Your task to perform on an android device: Look up the best rated kitchen knives on Amazon. Image 0: 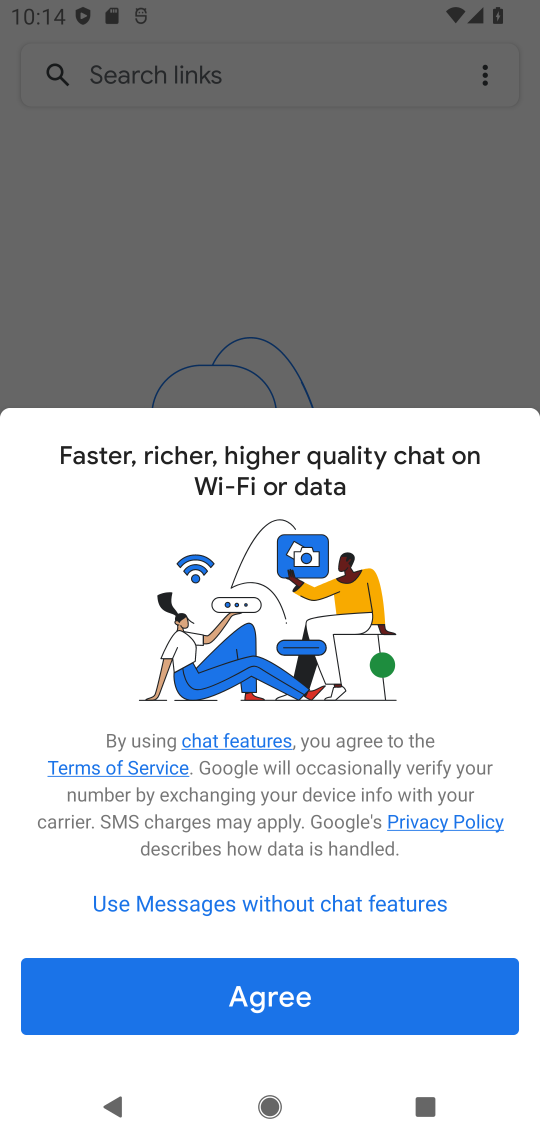
Step 0: press home button
Your task to perform on an android device: Look up the best rated kitchen knives on Amazon. Image 1: 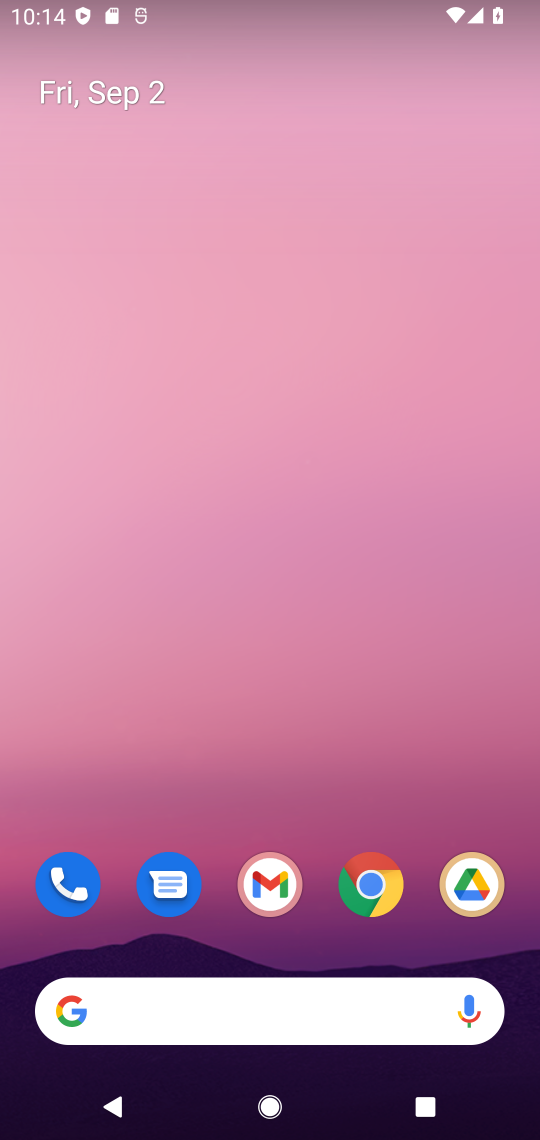
Step 1: drag from (312, 955) to (379, 377)
Your task to perform on an android device: Look up the best rated kitchen knives on Amazon. Image 2: 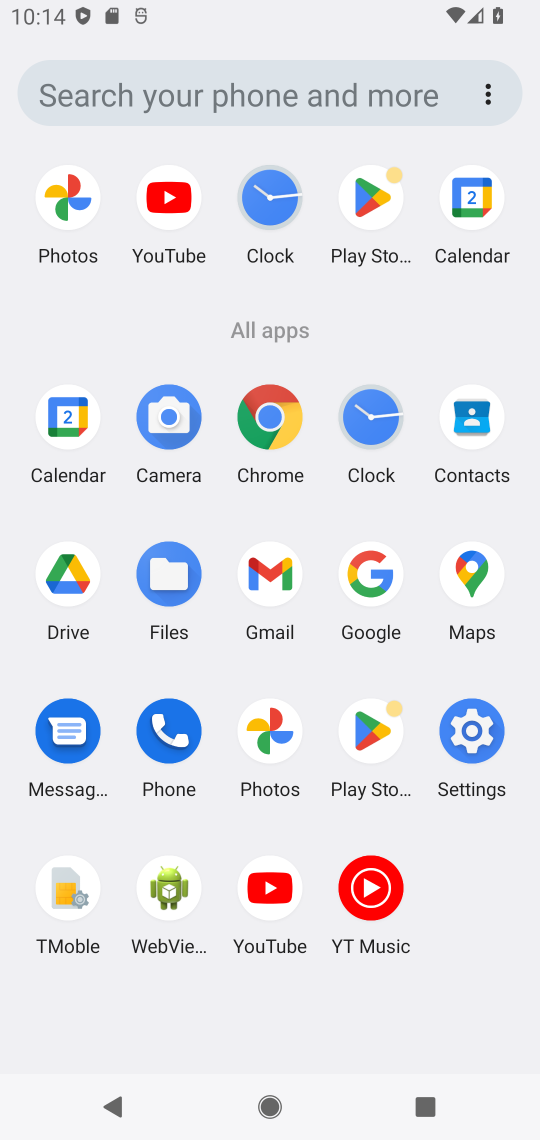
Step 2: click (276, 446)
Your task to perform on an android device: Look up the best rated kitchen knives on Amazon. Image 3: 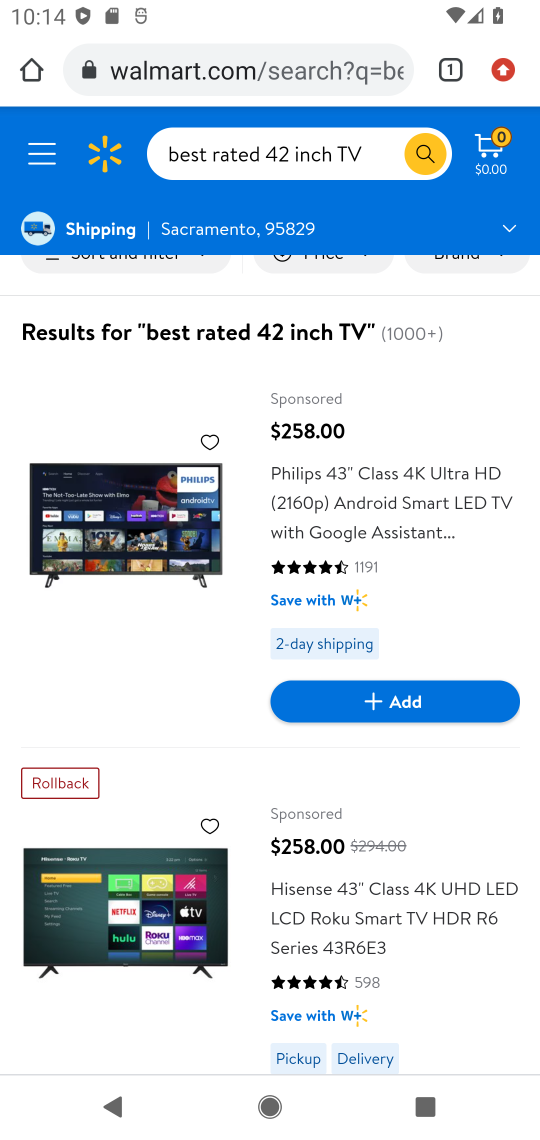
Step 3: click (311, 59)
Your task to perform on an android device: Look up the best rated kitchen knives on Amazon. Image 4: 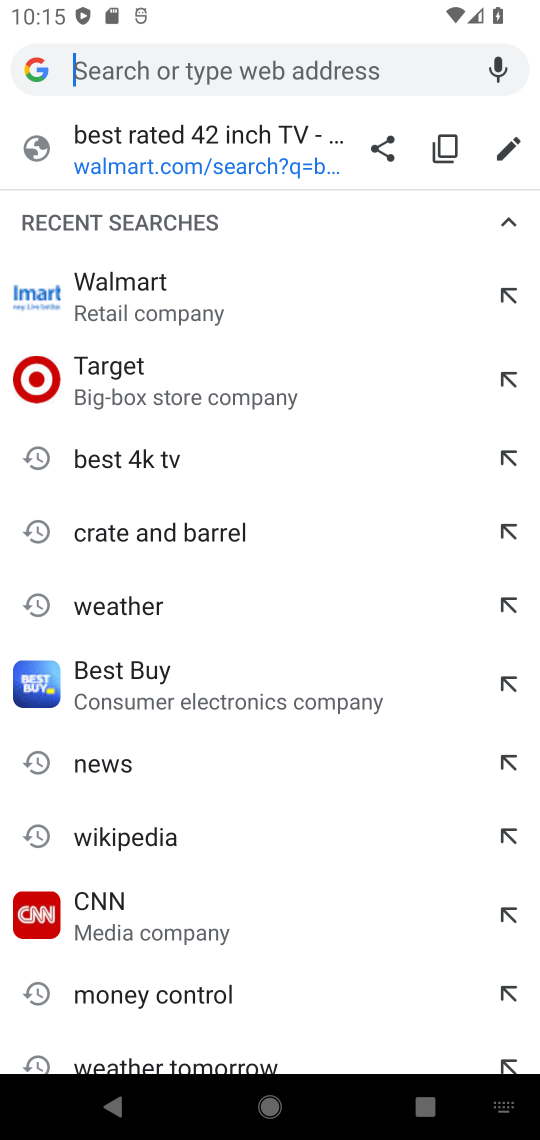
Step 4: type "amazon"
Your task to perform on an android device: Look up the best rated kitchen knives on Amazon. Image 5: 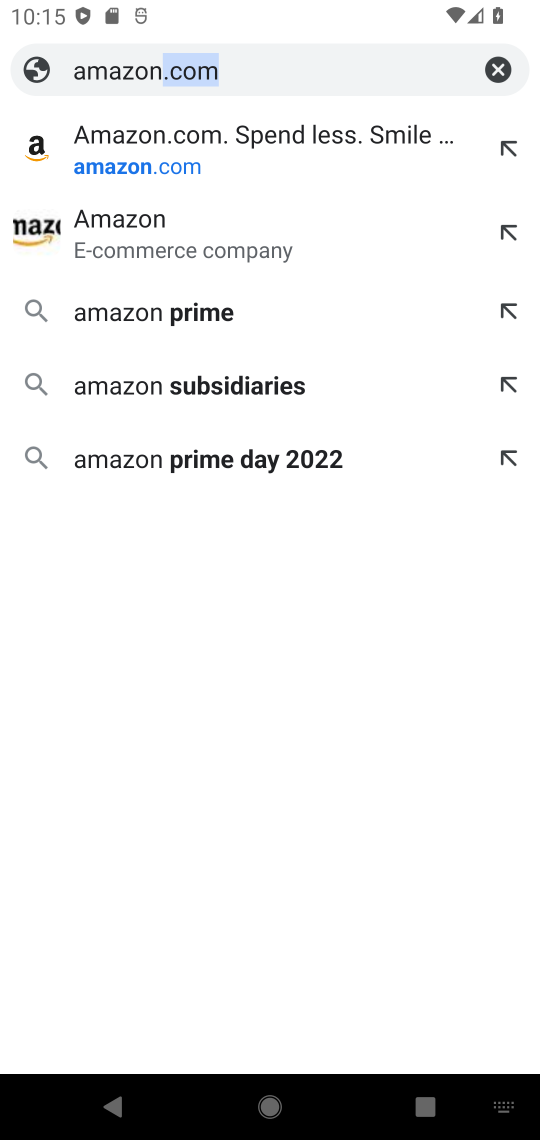
Step 5: click (286, 169)
Your task to perform on an android device: Look up the best rated kitchen knives on Amazon. Image 6: 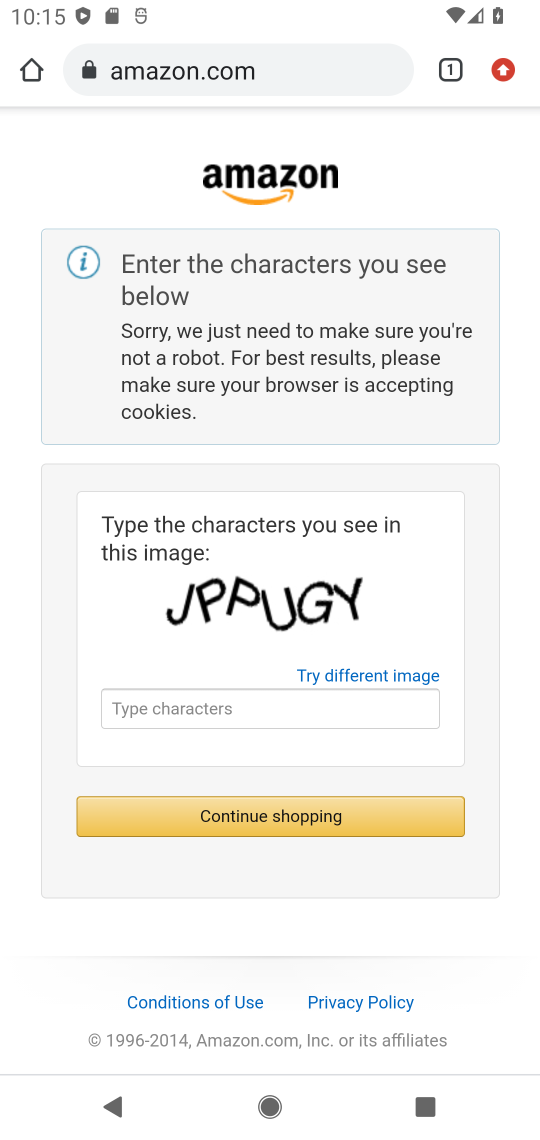
Step 6: click (373, 816)
Your task to perform on an android device: Look up the best rated kitchen knives on Amazon. Image 7: 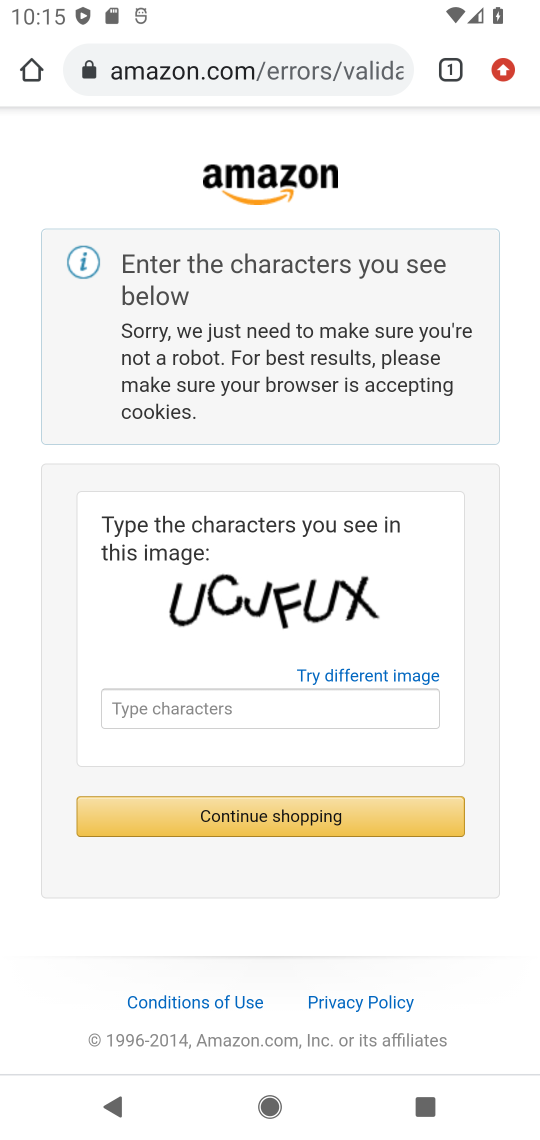
Step 7: click (264, 76)
Your task to perform on an android device: Look up the best rated kitchen knives on Amazon. Image 8: 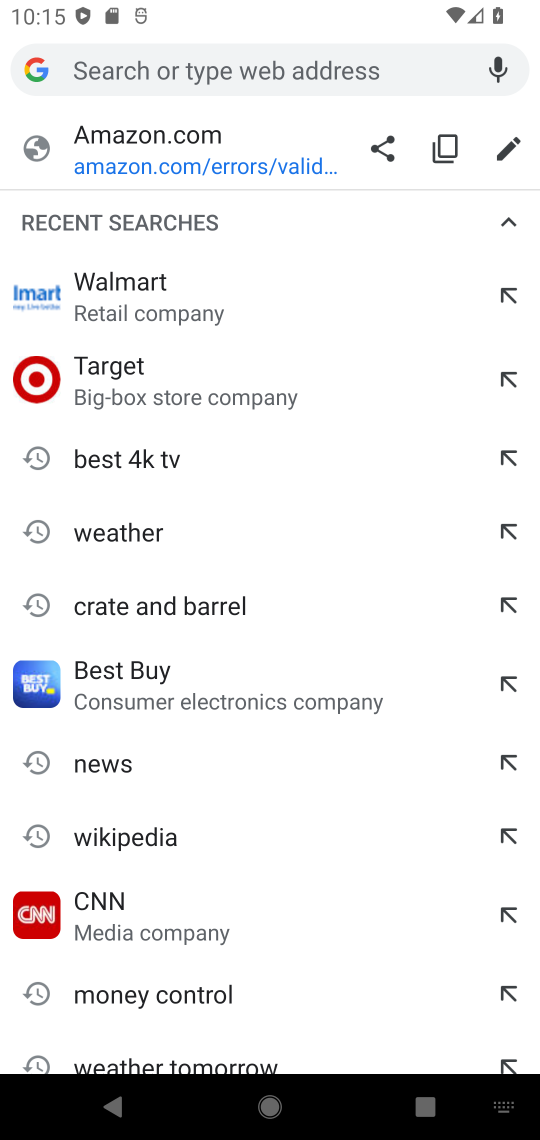
Step 8: type "amazon"
Your task to perform on an android device: Look up the best rated kitchen knives on Amazon. Image 9: 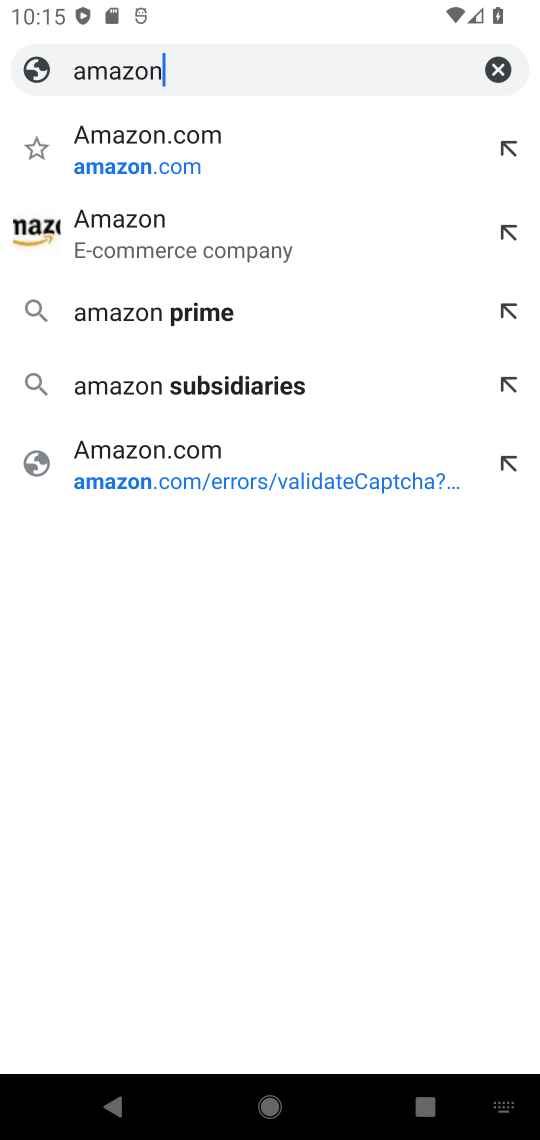
Step 9: click (301, 160)
Your task to perform on an android device: Look up the best rated kitchen knives on Amazon. Image 10: 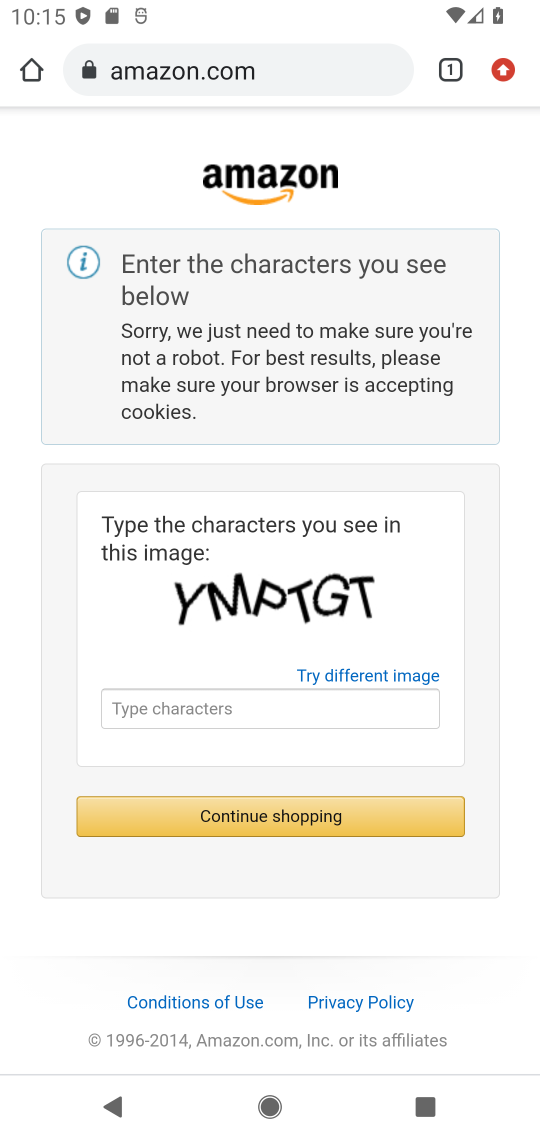
Step 10: click (229, 702)
Your task to perform on an android device: Look up the best rated kitchen knives on Amazon. Image 11: 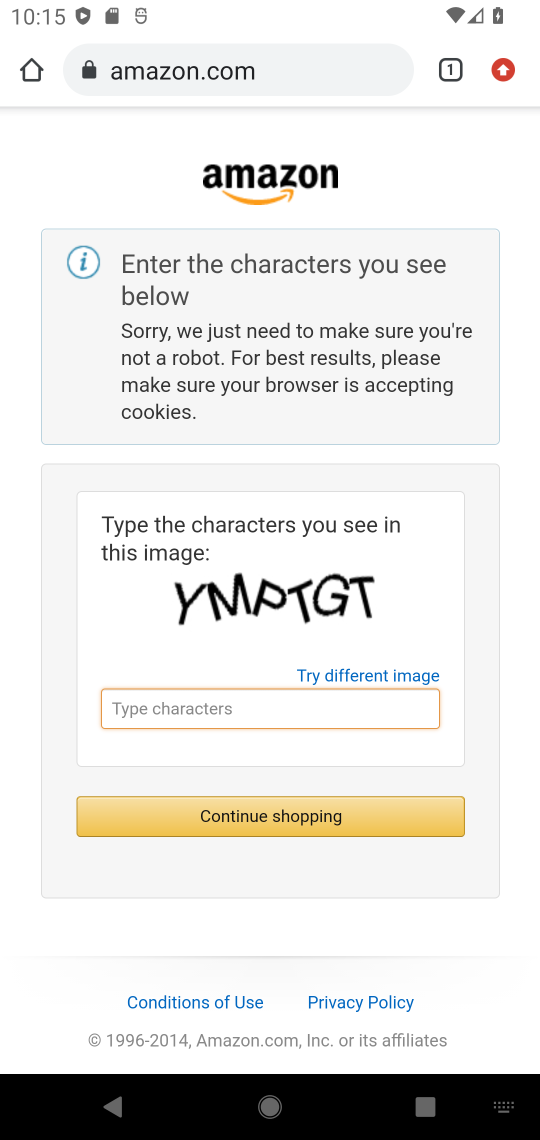
Step 11: type "YMPTGT"
Your task to perform on an android device: Look up the best rated kitchen knives on Amazon. Image 12: 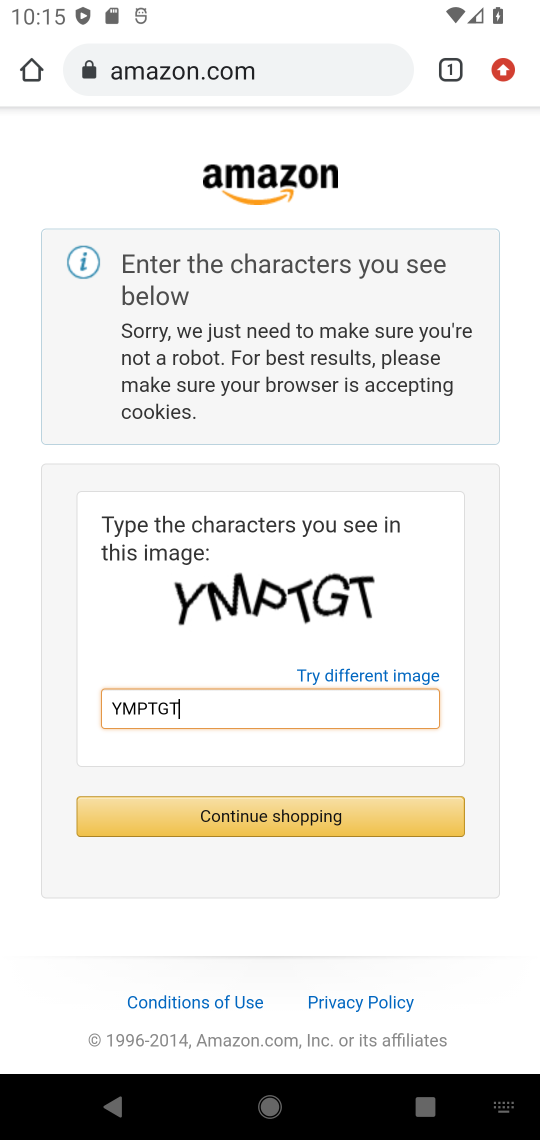
Step 12: click (281, 813)
Your task to perform on an android device: Look up the best rated kitchen knives on Amazon. Image 13: 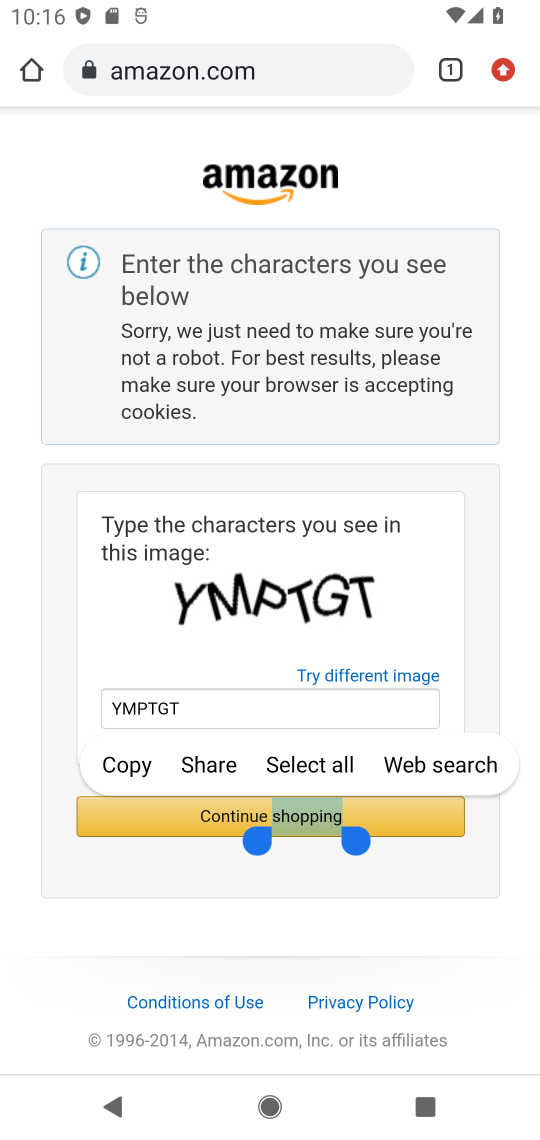
Step 13: click (159, 855)
Your task to perform on an android device: Look up the best rated kitchen knives on Amazon. Image 14: 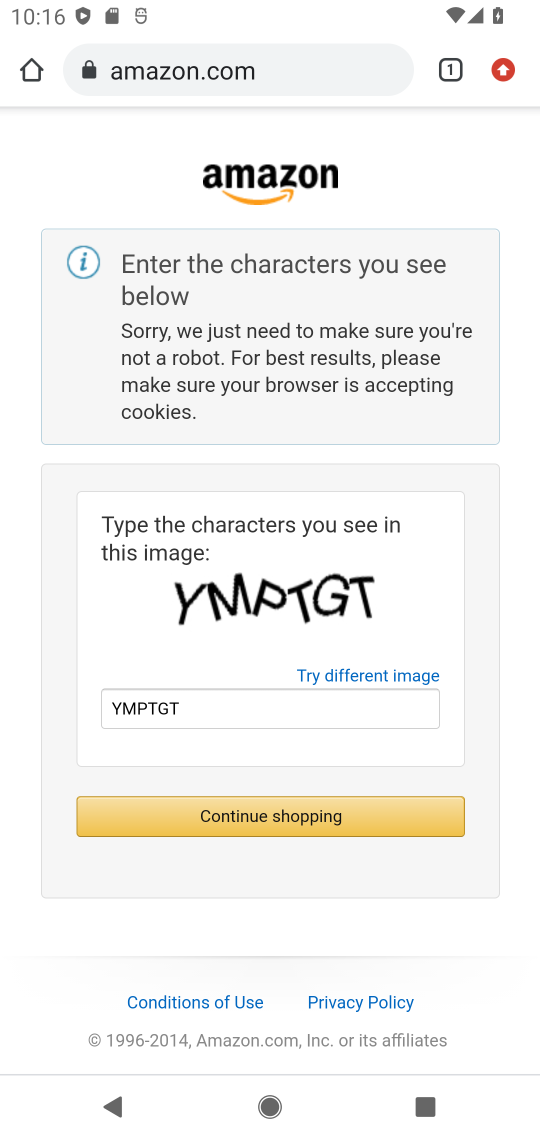
Step 14: click (159, 855)
Your task to perform on an android device: Look up the best rated kitchen knives on Amazon. Image 15: 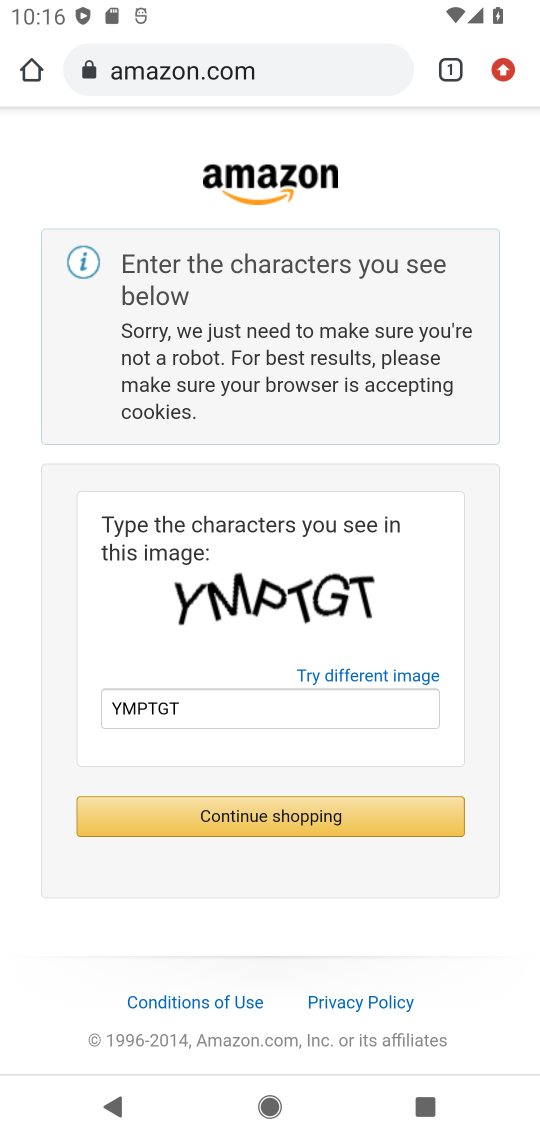
Step 15: click (224, 820)
Your task to perform on an android device: Look up the best rated kitchen knives on Amazon. Image 16: 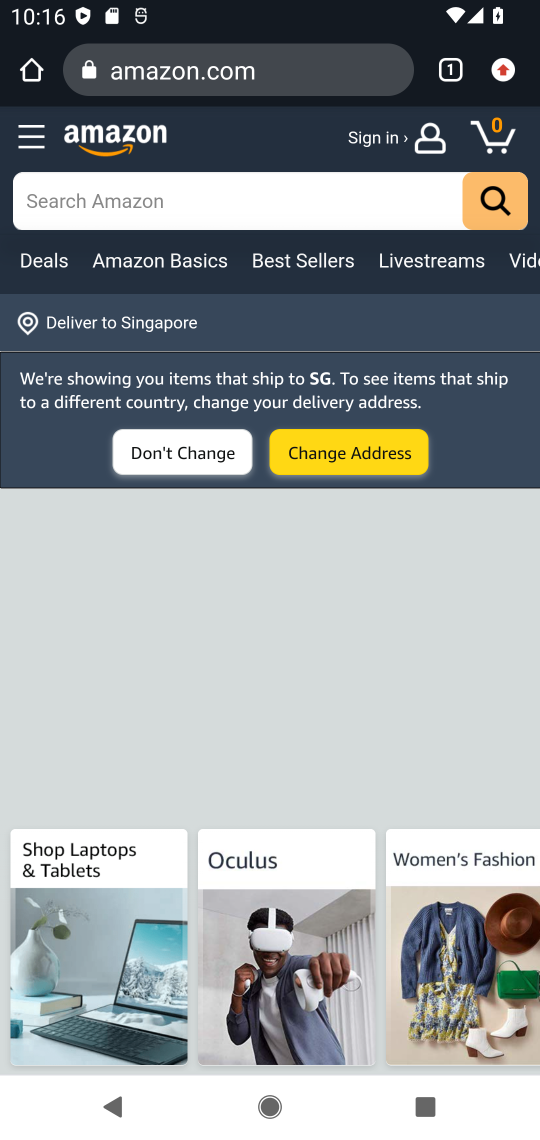
Step 16: click (237, 221)
Your task to perform on an android device: Look up the best rated kitchen knives on Amazon. Image 17: 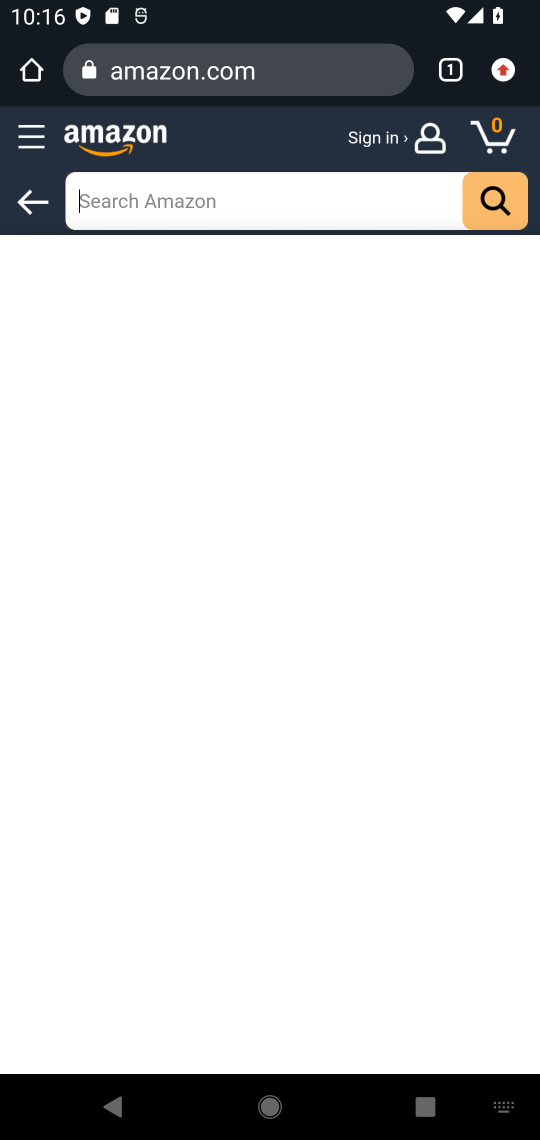
Step 17: type "best rated kitchen knives"
Your task to perform on an android device: Look up the best rated kitchen knives on Amazon. Image 18: 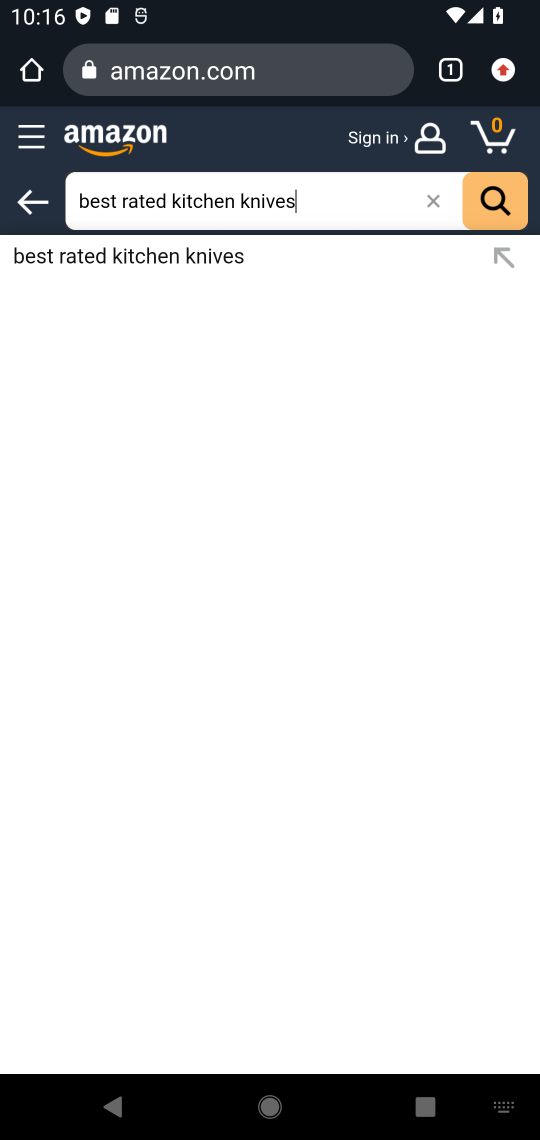
Step 18: click (234, 259)
Your task to perform on an android device: Look up the best rated kitchen knives on Amazon. Image 19: 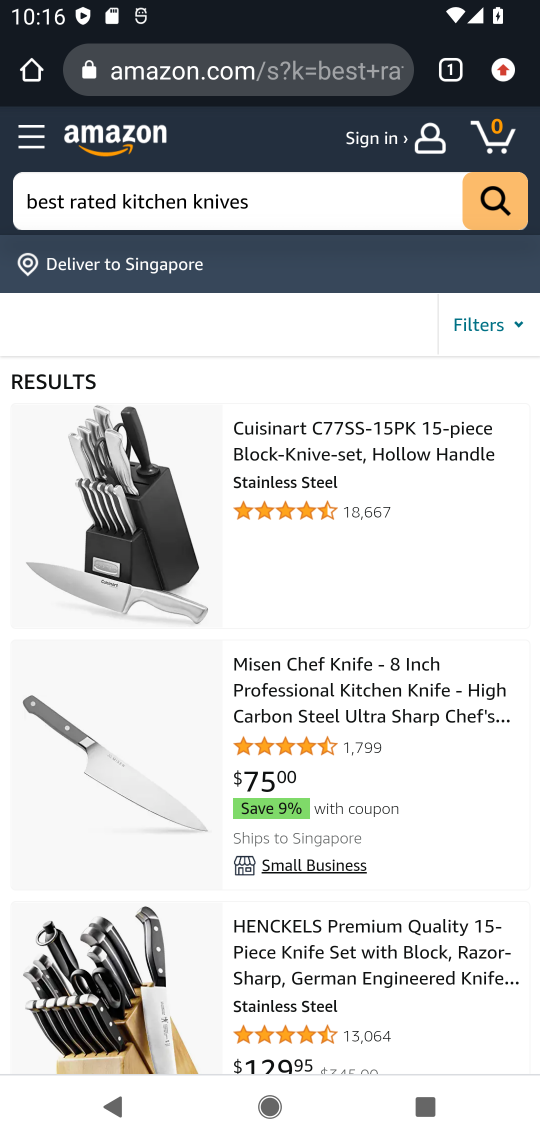
Step 19: task complete